Your task to perform on an android device: open the mobile data screen to see how much data has been used Image 0: 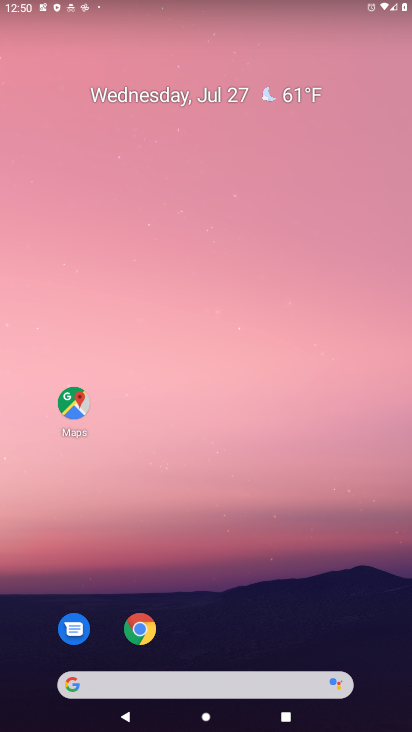
Step 0: drag from (269, 652) to (283, 130)
Your task to perform on an android device: open the mobile data screen to see how much data has been used Image 1: 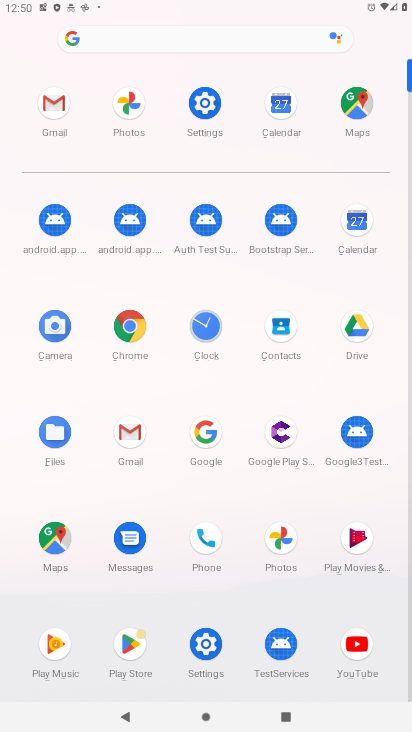
Step 1: click (200, 114)
Your task to perform on an android device: open the mobile data screen to see how much data has been used Image 2: 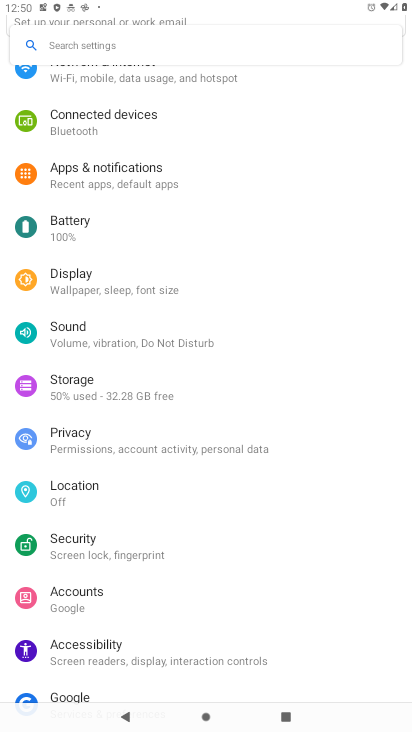
Step 2: click (131, 85)
Your task to perform on an android device: open the mobile data screen to see how much data has been used Image 3: 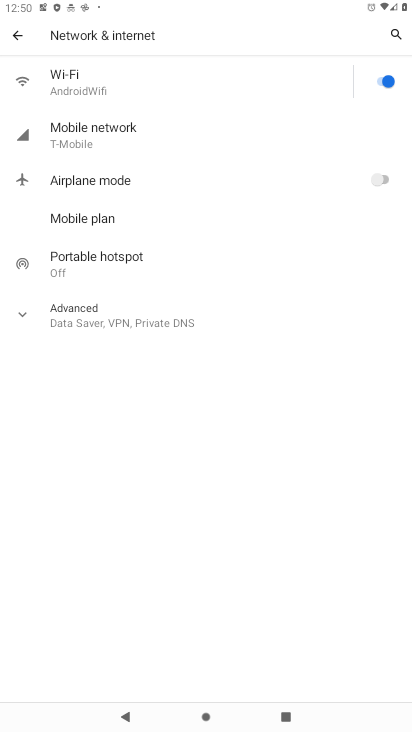
Step 3: click (126, 132)
Your task to perform on an android device: open the mobile data screen to see how much data has been used Image 4: 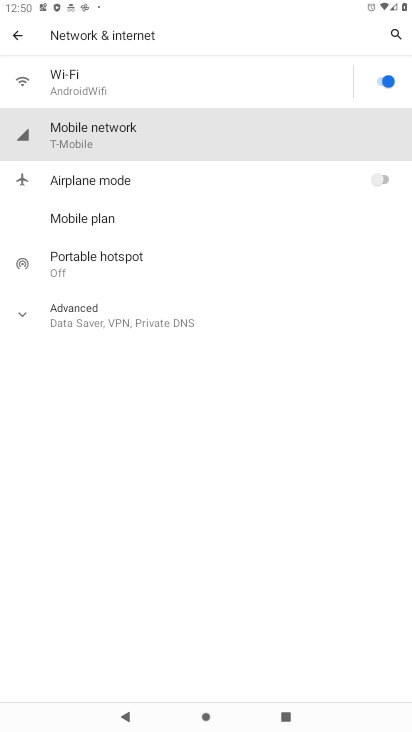
Step 4: task complete